Your task to perform on an android device: Open Yahoo.com Image 0: 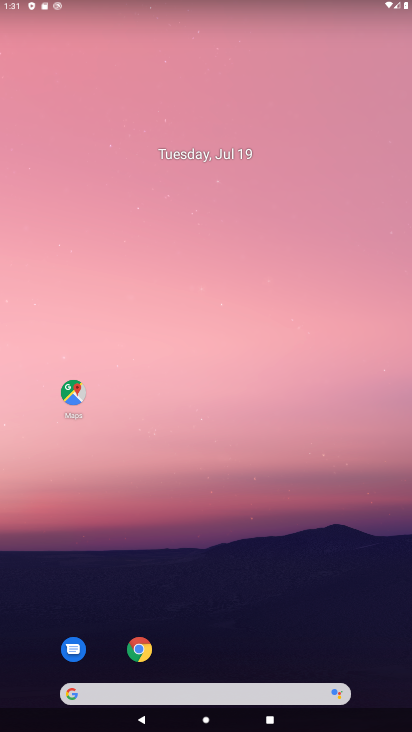
Step 0: drag from (311, 570) to (236, 49)
Your task to perform on an android device: Open Yahoo.com Image 1: 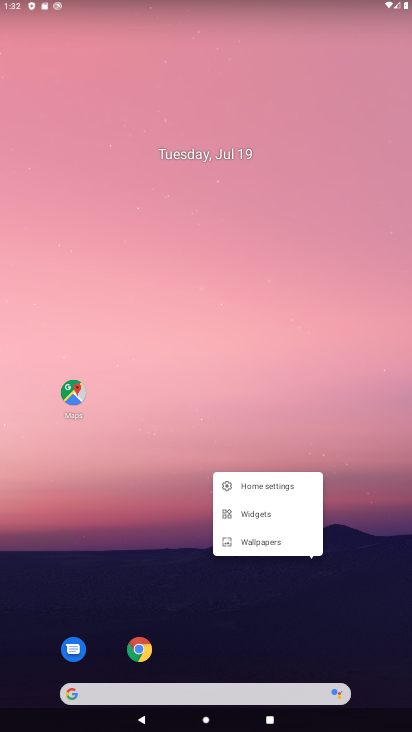
Step 1: drag from (336, 628) to (374, 483)
Your task to perform on an android device: Open Yahoo.com Image 2: 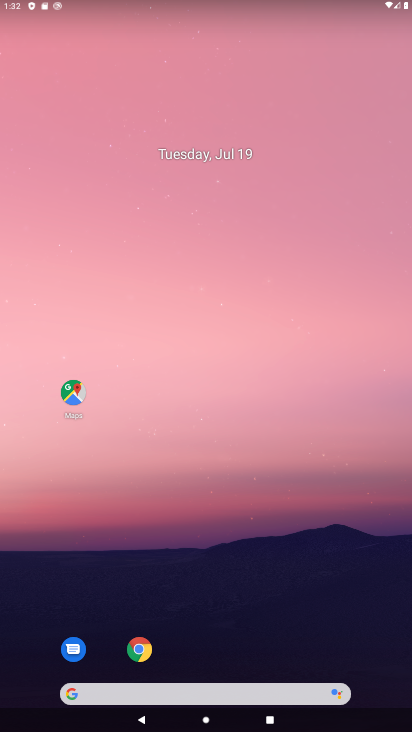
Step 2: click (228, 399)
Your task to perform on an android device: Open Yahoo.com Image 3: 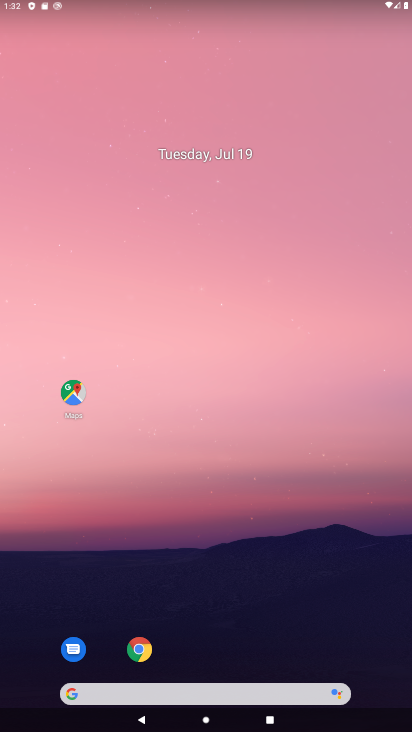
Step 3: click (287, 373)
Your task to perform on an android device: Open Yahoo.com Image 4: 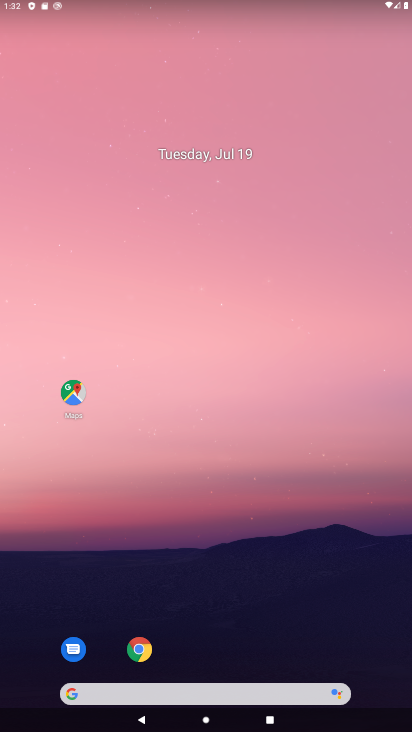
Step 4: drag from (273, 611) to (220, 87)
Your task to perform on an android device: Open Yahoo.com Image 5: 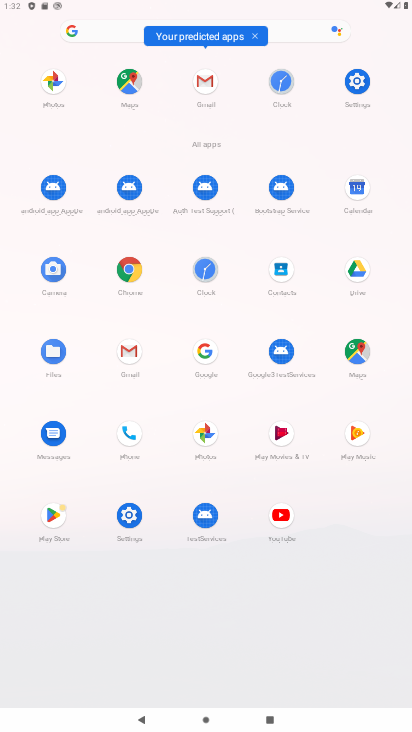
Step 5: click (132, 271)
Your task to perform on an android device: Open Yahoo.com Image 6: 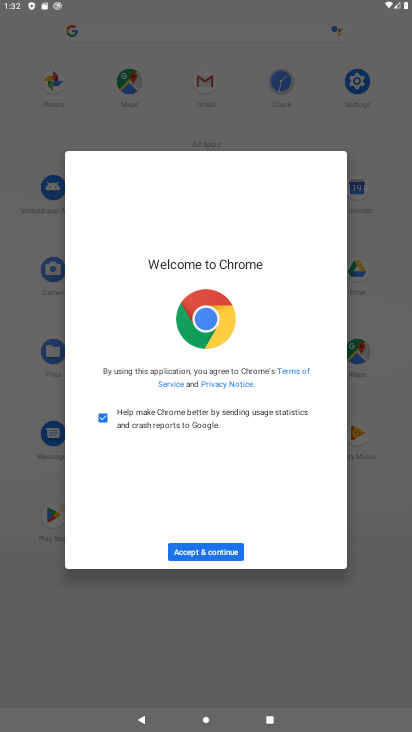
Step 6: click (195, 553)
Your task to perform on an android device: Open Yahoo.com Image 7: 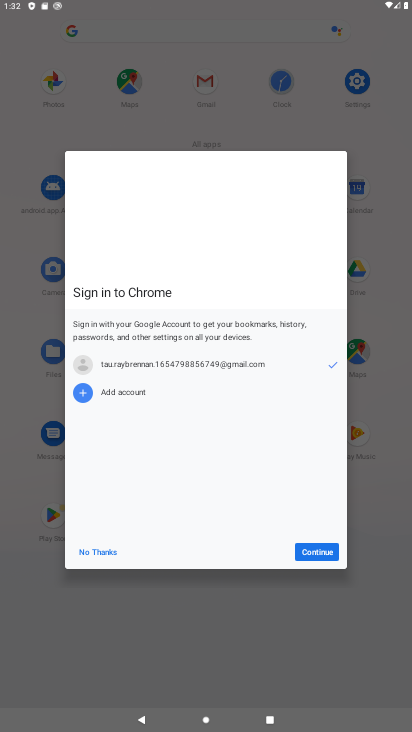
Step 7: click (331, 552)
Your task to perform on an android device: Open Yahoo.com Image 8: 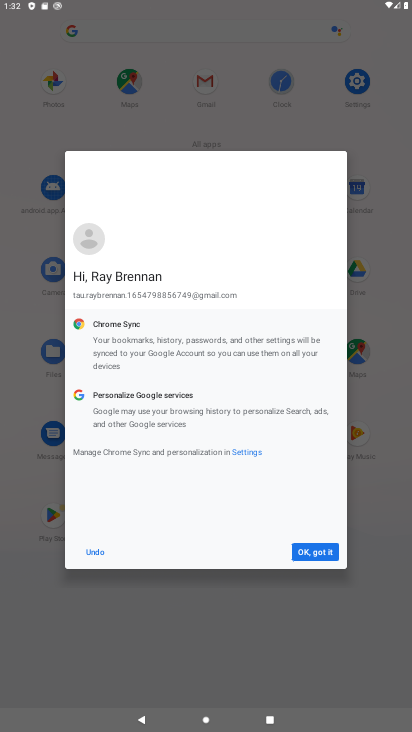
Step 8: click (331, 551)
Your task to perform on an android device: Open Yahoo.com Image 9: 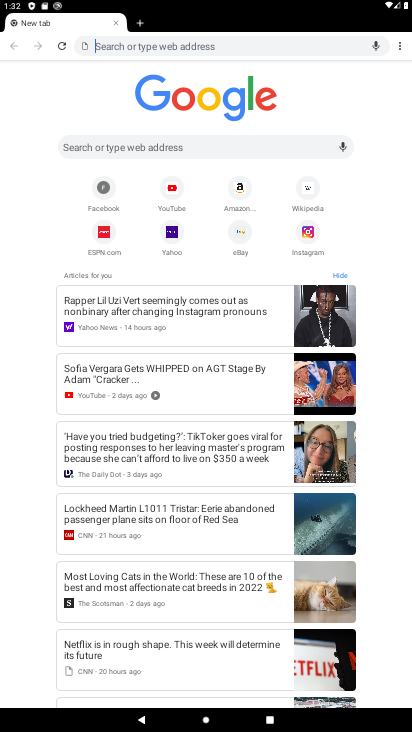
Step 9: click (215, 47)
Your task to perform on an android device: Open Yahoo.com Image 10: 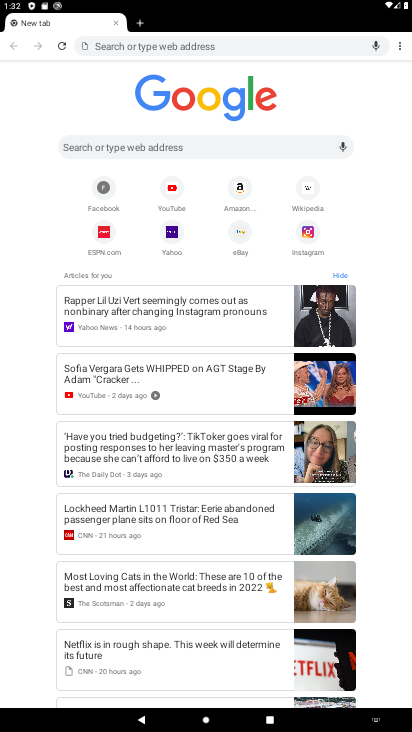
Step 10: type "yahoo.com"
Your task to perform on an android device: Open Yahoo.com Image 11: 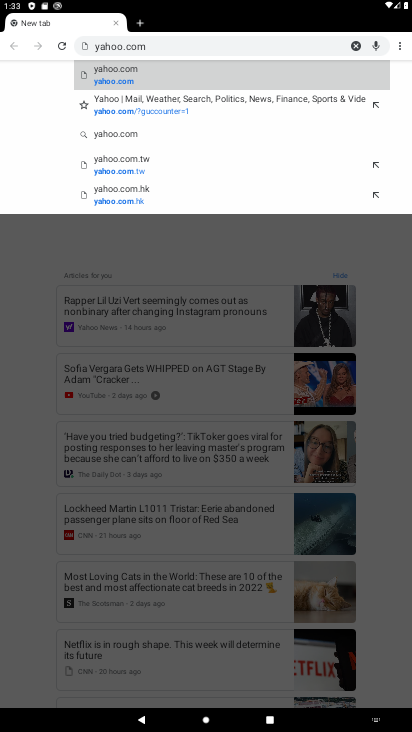
Step 11: click (126, 78)
Your task to perform on an android device: Open Yahoo.com Image 12: 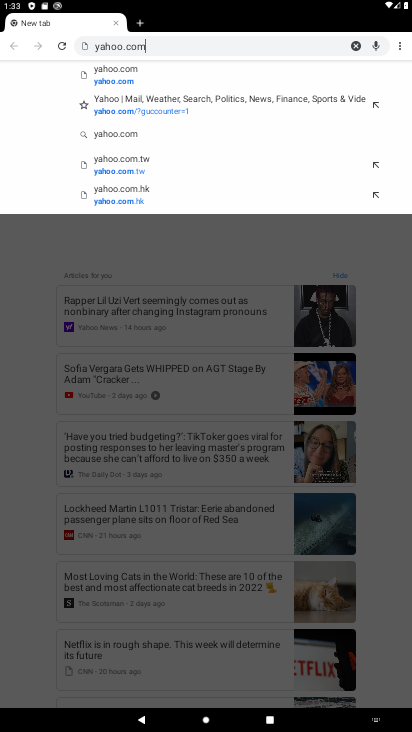
Step 12: click (116, 72)
Your task to perform on an android device: Open Yahoo.com Image 13: 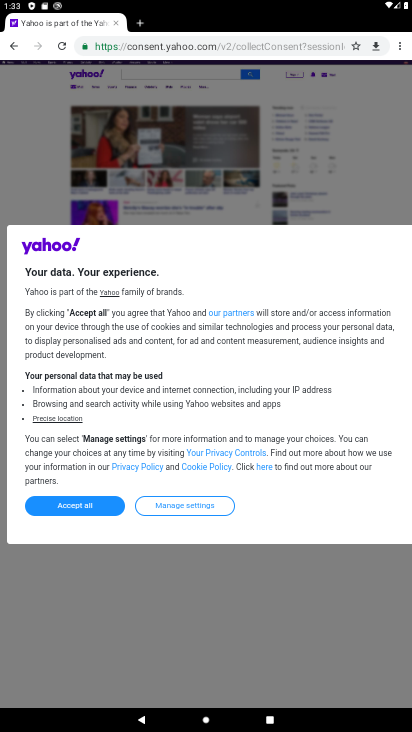
Step 13: task complete